Your task to perform on an android device: Go to privacy settings Image 0: 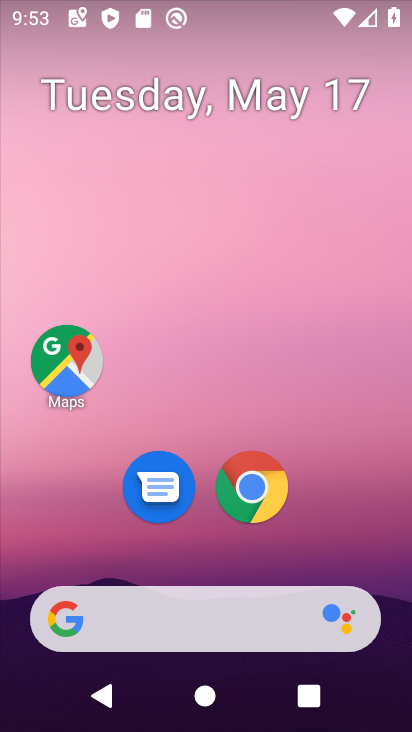
Step 0: drag from (265, 657) to (259, 261)
Your task to perform on an android device: Go to privacy settings Image 1: 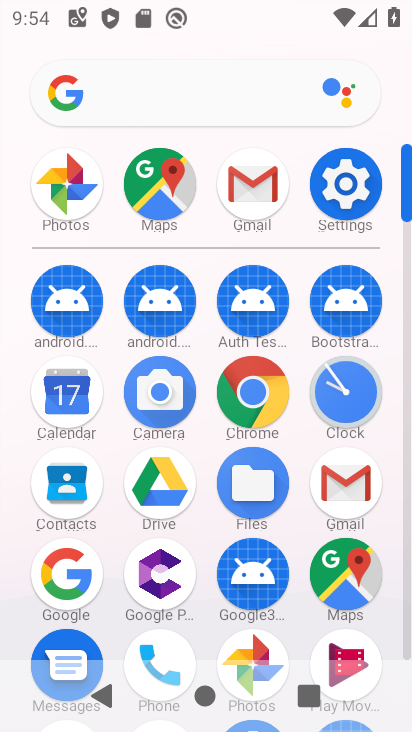
Step 1: click (355, 200)
Your task to perform on an android device: Go to privacy settings Image 2: 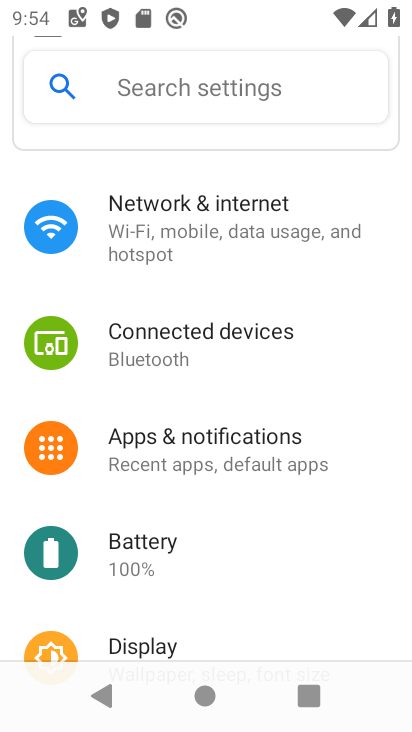
Step 2: drag from (222, 507) to (232, 162)
Your task to perform on an android device: Go to privacy settings Image 3: 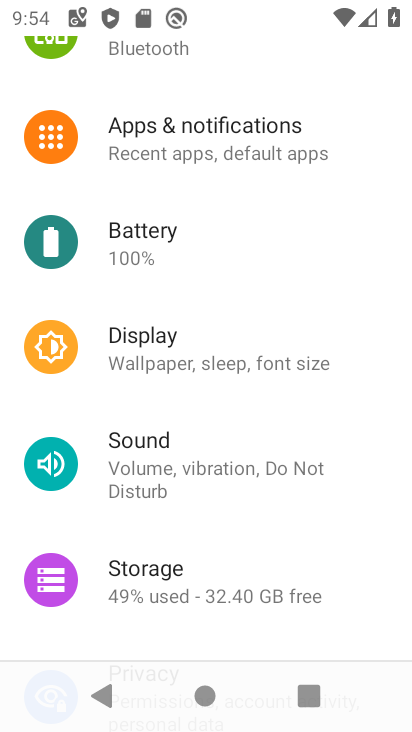
Step 3: drag from (142, 500) to (181, 239)
Your task to perform on an android device: Go to privacy settings Image 4: 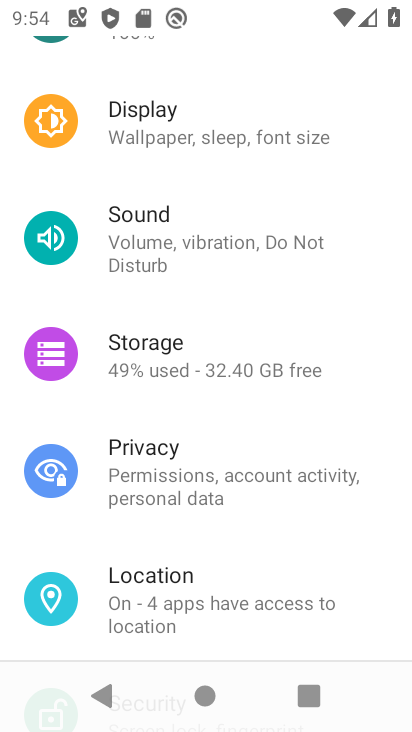
Step 4: drag from (138, 540) to (171, 277)
Your task to perform on an android device: Go to privacy settings Image 5: 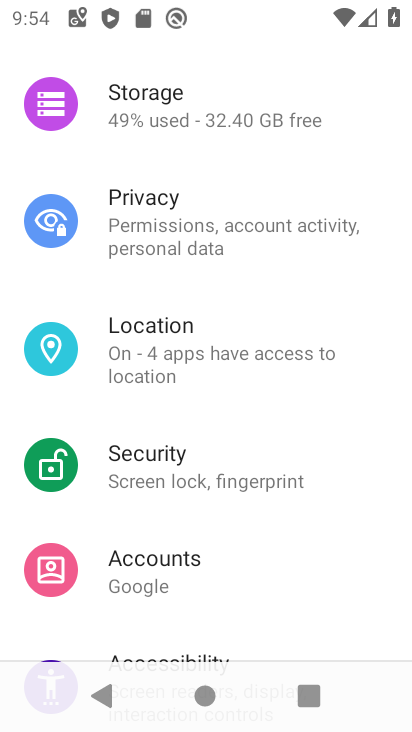
Step 5: drag from (174, 560) to (189, 295)
Your task to perform on an android device: Go to privacy settings Image 6: 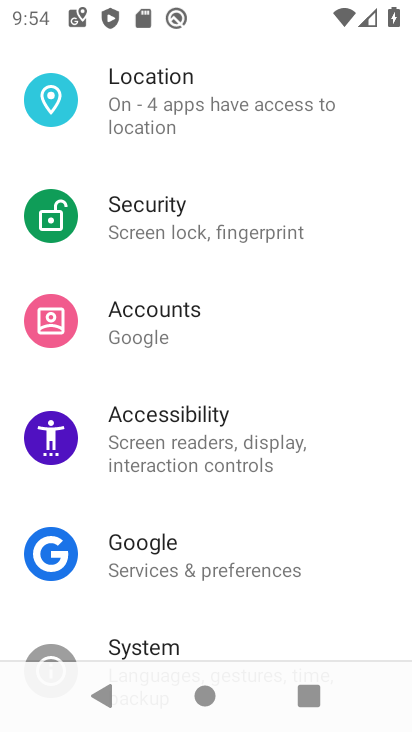
Step 6: drag from (185, 296) to (214, 660)
Your task to perform on an android device: Go to privacy settings Image 7: 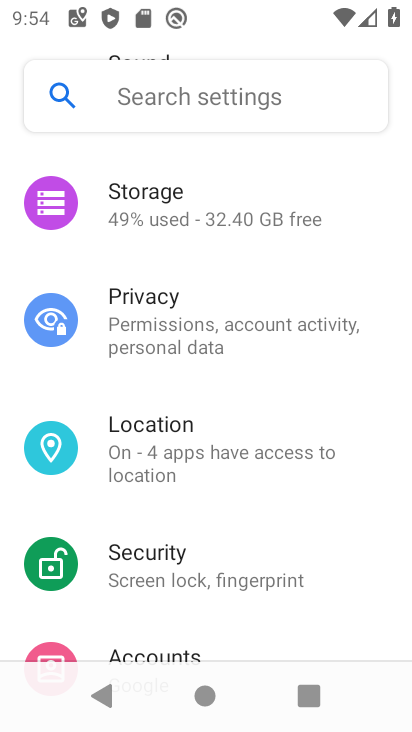
Step 7: click (183, 333)
Your task to perform on an android device: Go to privacy settings Image 8: 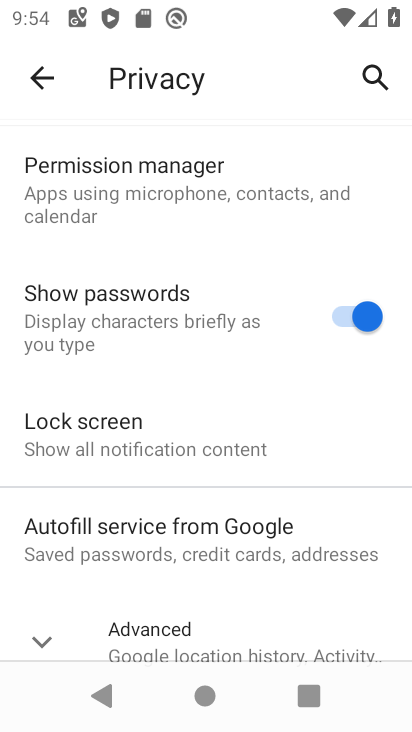
Step 8: task complete